Your task to perform on an android device: Open calendar and show me the third week of next month Image 0: 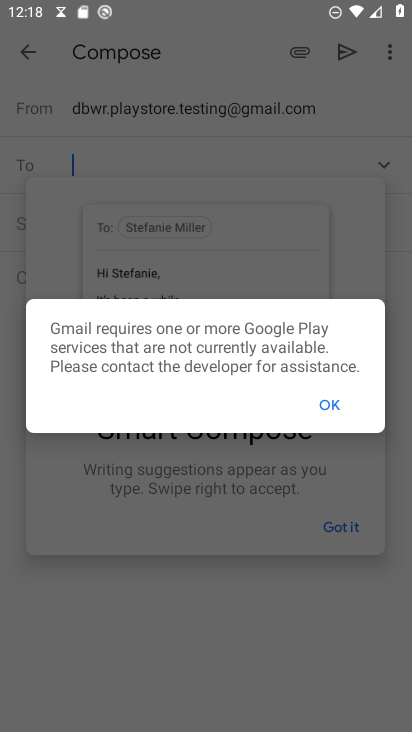
Step 0: press home button
Your task to perform on an android device: Open calendar and show me the third week of next month Image 1: 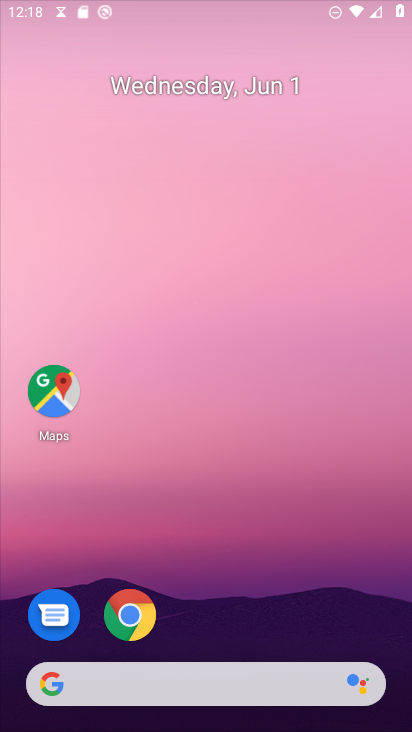
Step 1: drag from (203, 654) to (243, 57)
Your task to perform on an android device: Open calendar and show me the third week of next month Image 2: 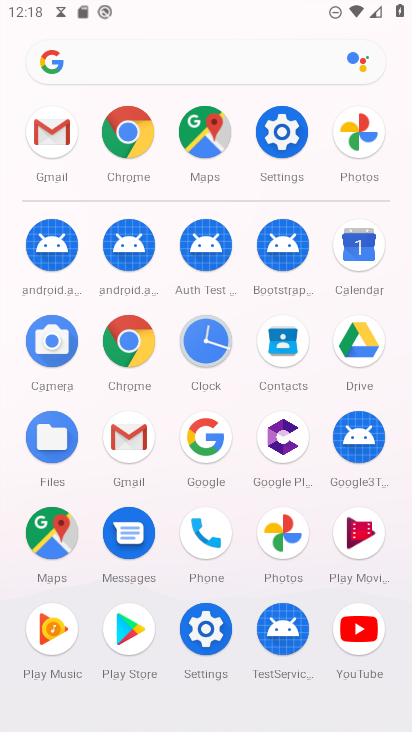
Step 2: click (365, 258)
Your task to perform on an android device: Open calendar and show me the third week of next month Image 3: 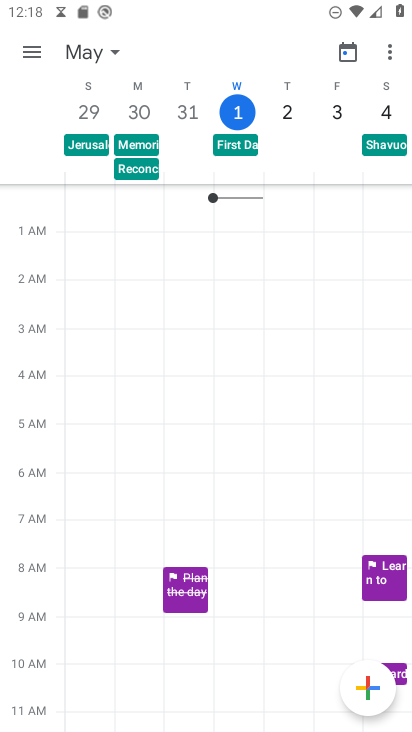
Step 3: click (116, 48)
Your task to perform on an android device: Open calendar and show me the third week of next month Image 4: 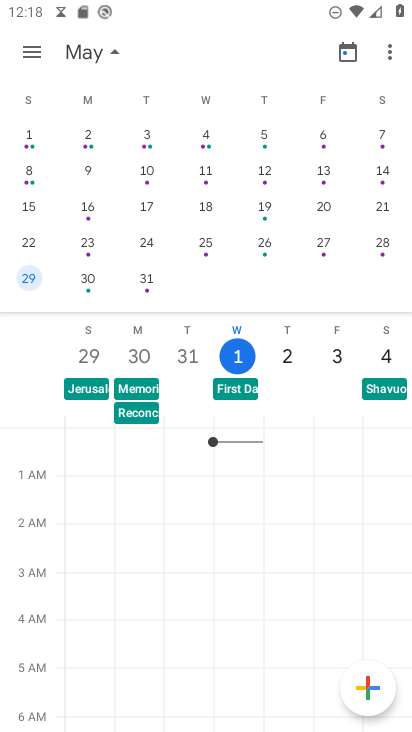
Step 4: drag from (394, 235) to (22, 220)
Your task to perform on an android device: Open calendar and show me the third week of next month Image 5: 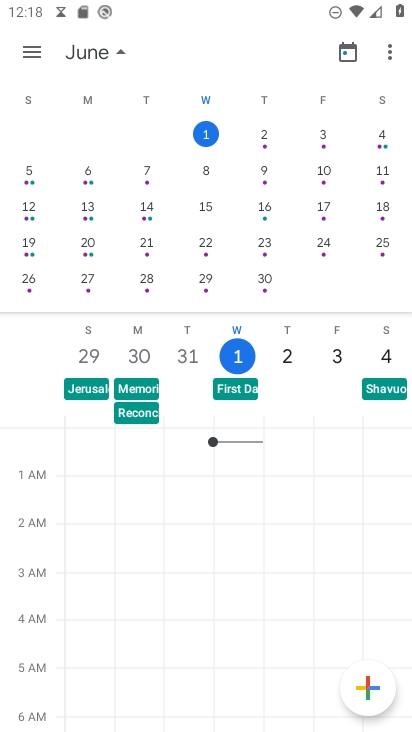
Step 5: click (213, 208)
Your task to perform on an android device: Open calendar and show me the third week of next month Image 6: 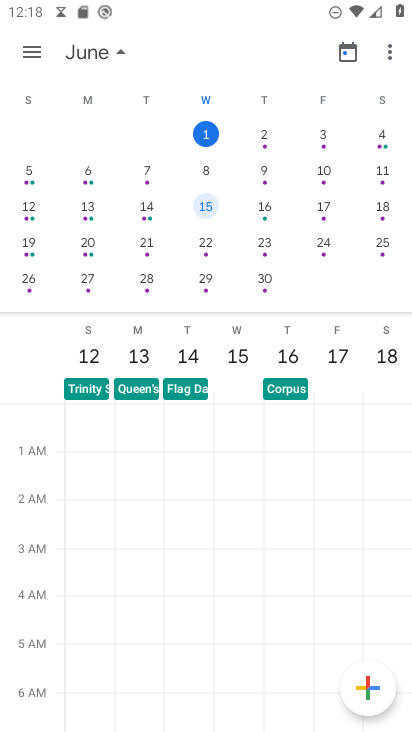
Step 6: task complete